Your task to perform on an android device: check google app version Image 0: 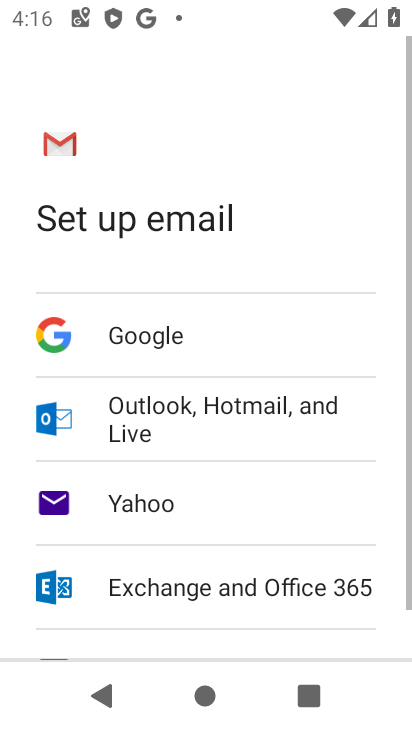
Step 0: press home button
Your task to perform on an android device: check google app version Image 1: 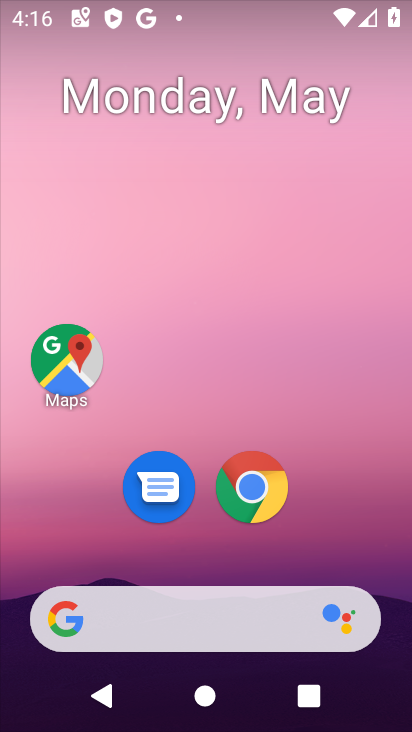
Step 1: drag from (368, 572) to (354, 15)
Your task to perform on an android device: check google app version Image 2: 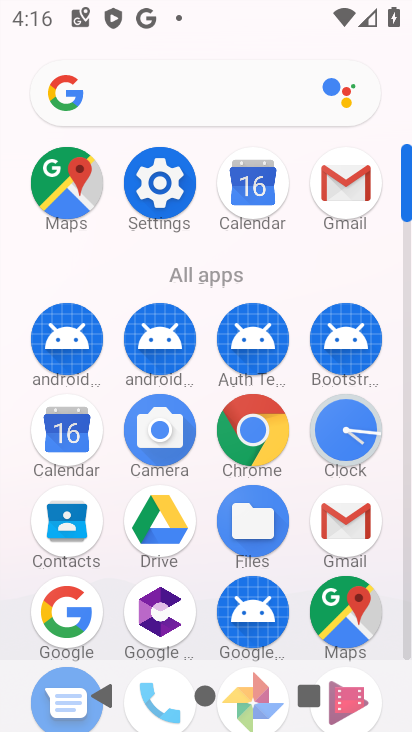
Step 2: click (65, 593)
Your task to perform on an android device: check google app version Image 3: 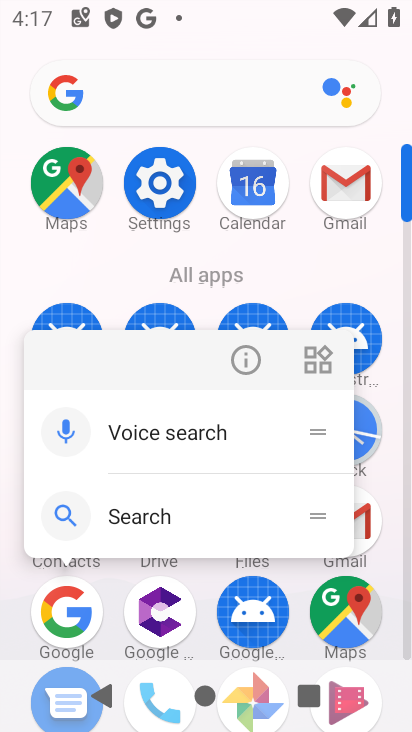
Step 3: click (244, 369)
Your task to perform on an android device: check google app version Image 4: 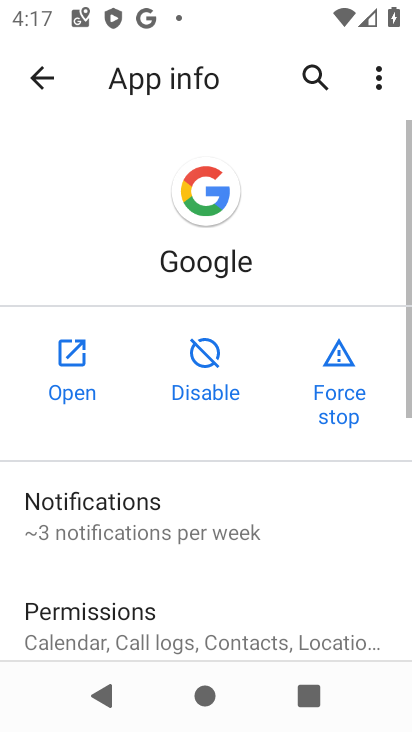
Step 4: drag from (196, 520) to (191, 205)
Your task to perform on an android device: check google app version Image 5: 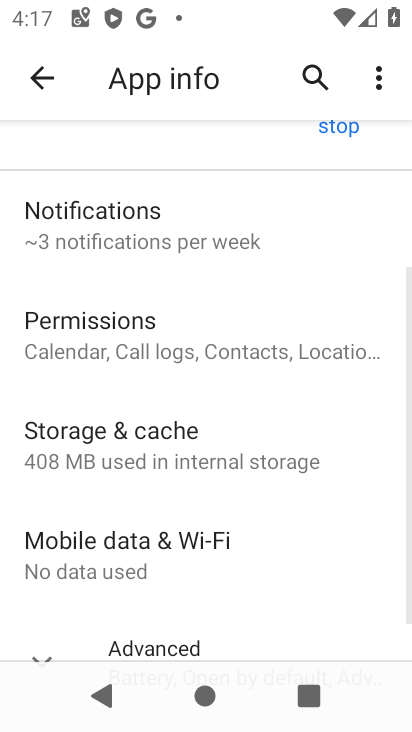
Step 5: drag from (122, 568) to (111, 225)
Your task to perform on an android device: check google app version Image 6: 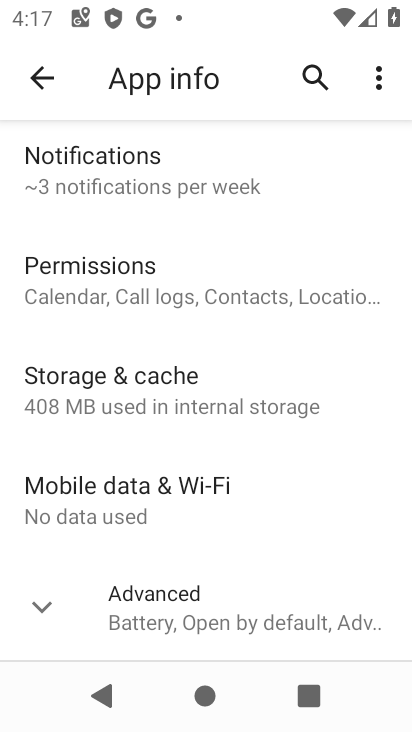
Step 6: click (57, 611)
Your task to perform on an android device: check google app version Image 7: 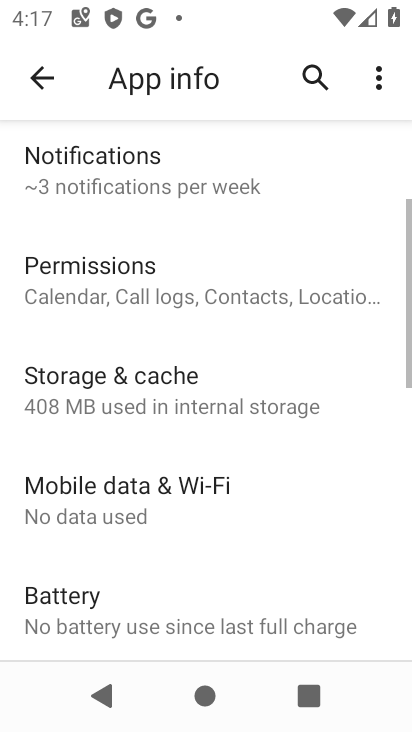
Step 7: task complete